Your task to perform on an android device: turn off airplane mode Image 0: 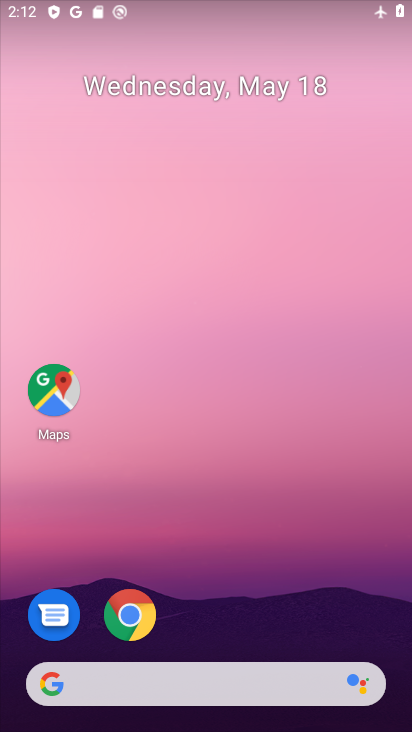
Step 0: drag from (206, 619) to (279, 247)
Your task to perform on an android device: turn off airplane mode Image 1: 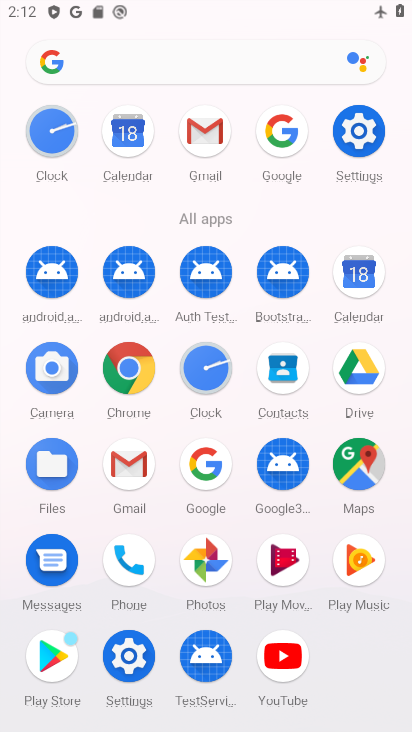
Step 1: click (197, 372)
Your task to perform on an android device: turn off airplane mode Image 2: 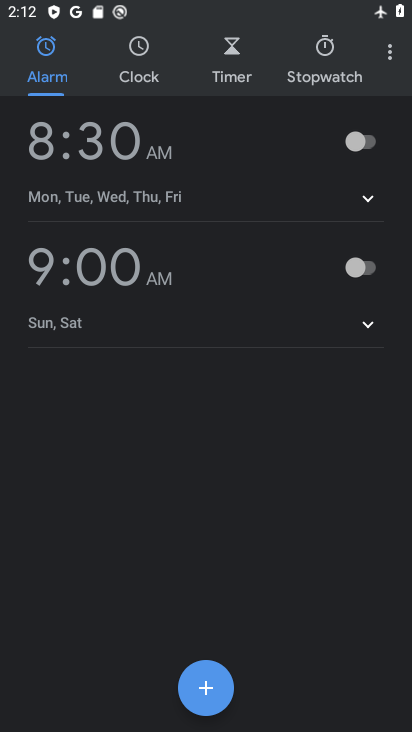
Step 2: press home button
Your task to perform on an android device: turn off airplane mode Image 3: 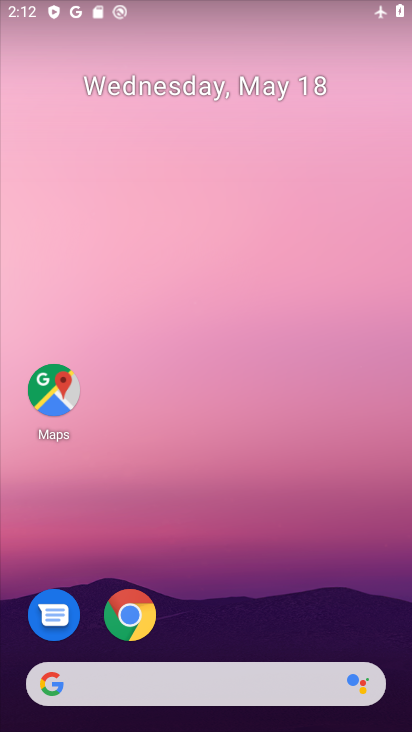
Step 3: drag from (205, 603) to (258, 181)
Your task to perform on an android device: turn off airplane mode Image 4: 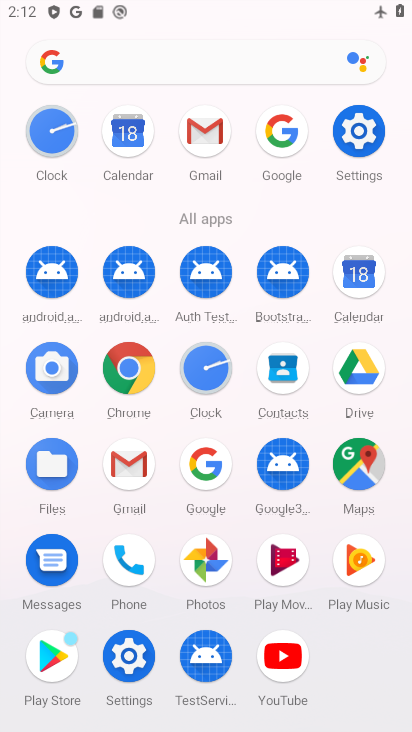
Step 4: click (365, 130)
Your task to perform on an android device: turn off airplane mode Image 5: 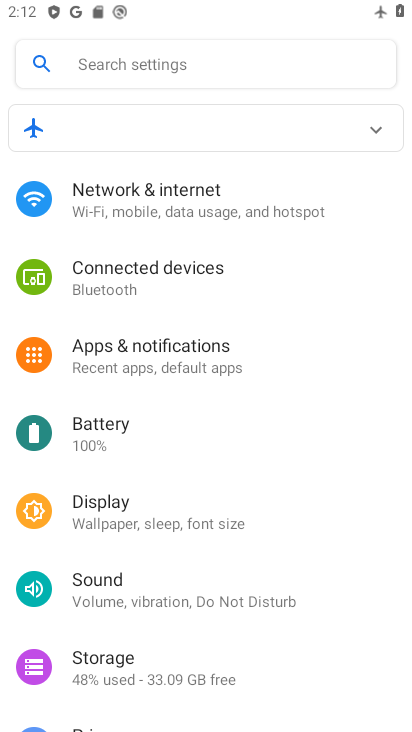
Step 5: click (192, 194)
Your task to perform on an android device: turn off airplane mode Image 6: 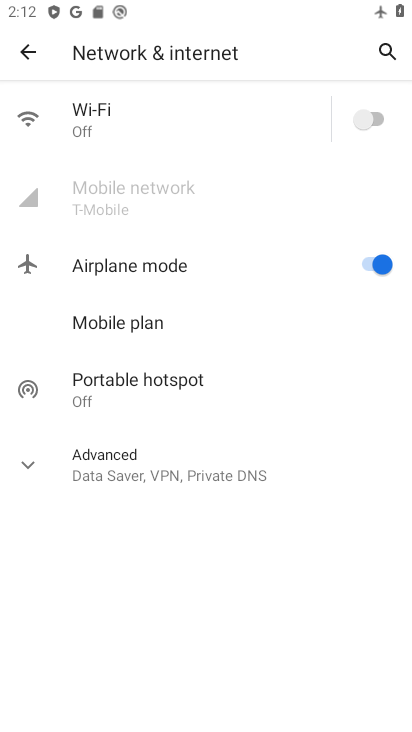
Step 6: click (370, 263)
Your task to perform on an android device: turn off airplane mode Image 7: 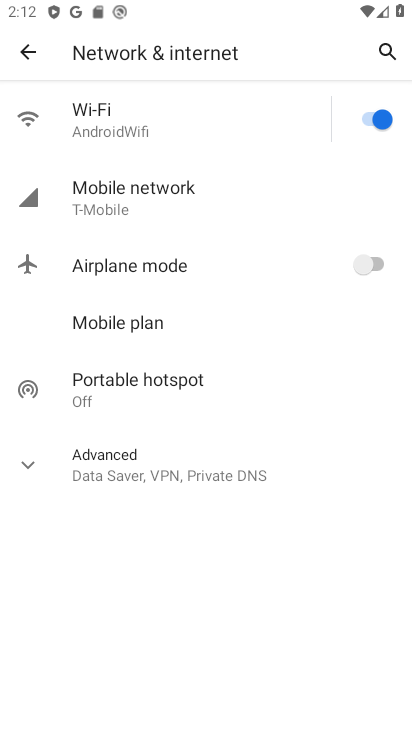
Step 7: task complete